Your task to perform on an android device: open chrome and create a bookmark for the current page Image 0: 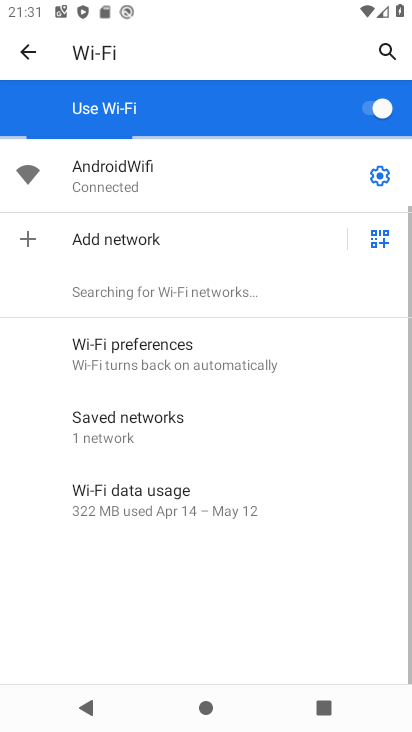
Step 0: press home button
Your task to perform on an android device: open chrome and create a bookmark for the current page Image 1: 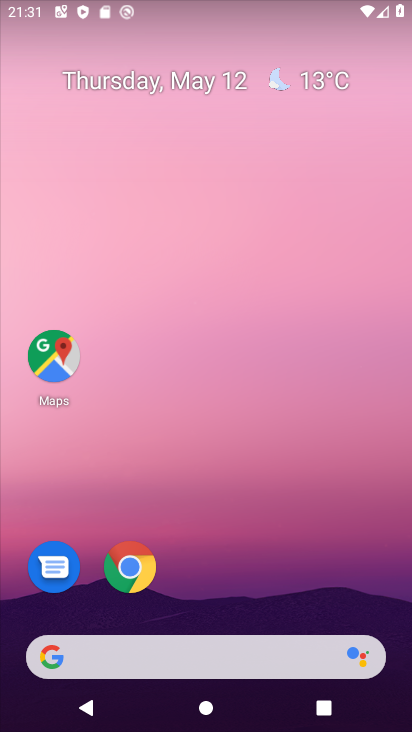
Step 1: drag from (219, 612) to (229, 49)
Your task to perform on an android device: open chrome and create a bookmark for the current page Image 2: 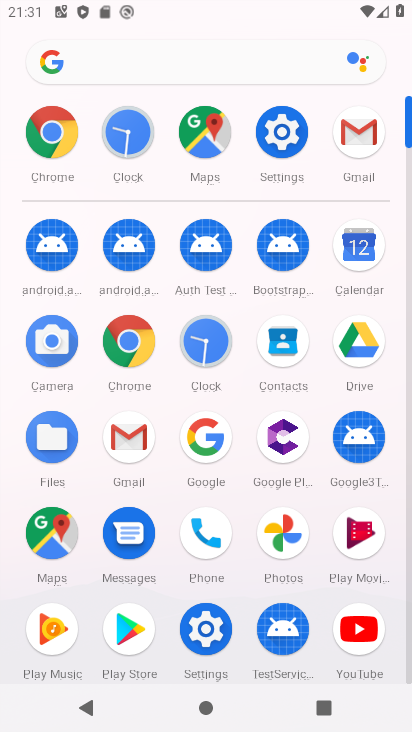
Step 2: click (48, 128)
Your task to perform on an android device: open chrome and create a bookmark for the current page Image 3: 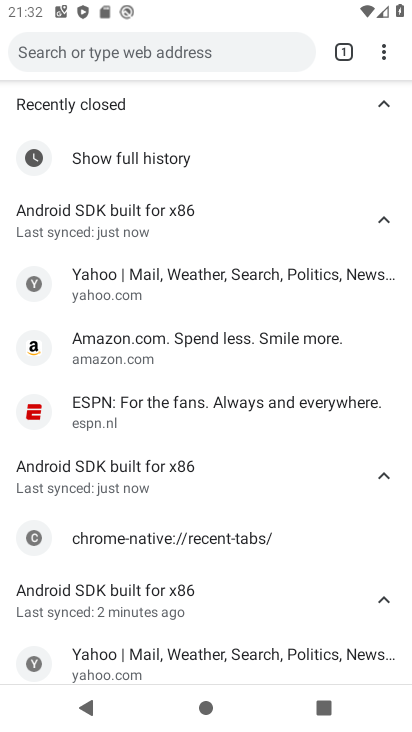
Step 3: click (384, 50)
Your task to perform on an android device: open chrome and create a bookmark for the current page Image 4: 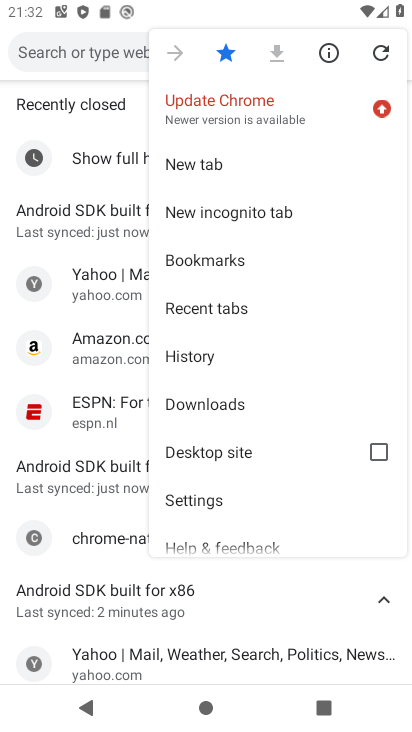
Step 4: click (85, 138)
Your task to perform on an android device: open chrome and create a bookmark for the current page Image 5: 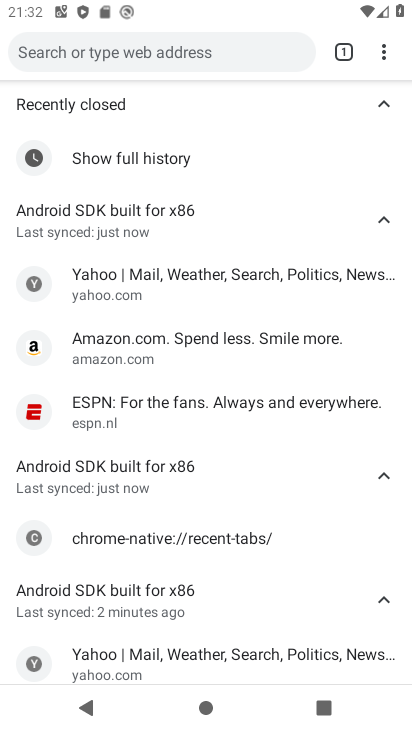
Step 5: click (349, 44)
Your task to perform on an android device: open chrome and create a bookmark for the current page Image 6: 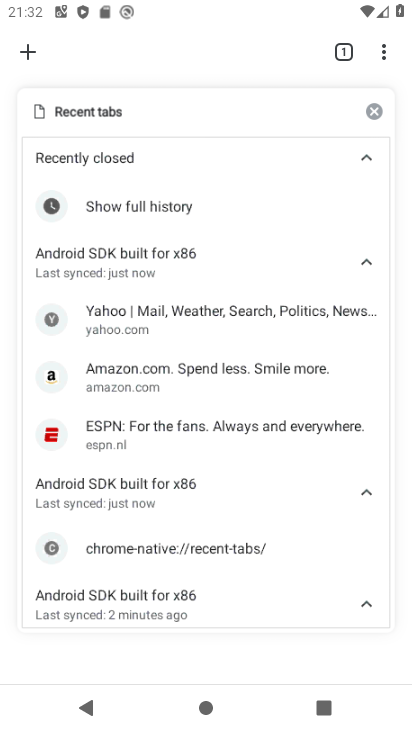
Step 6: click (374, 104)
Your task to perform on an android device: open chrome and create a bookmark for the current page Image 7: 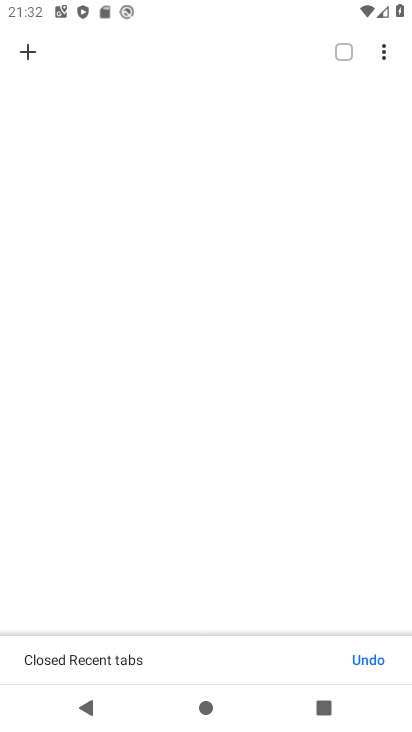
Step 7: click (30, 54)
Your task to perform on an android device: open chrome and create a bookmark for the current page Image 8: 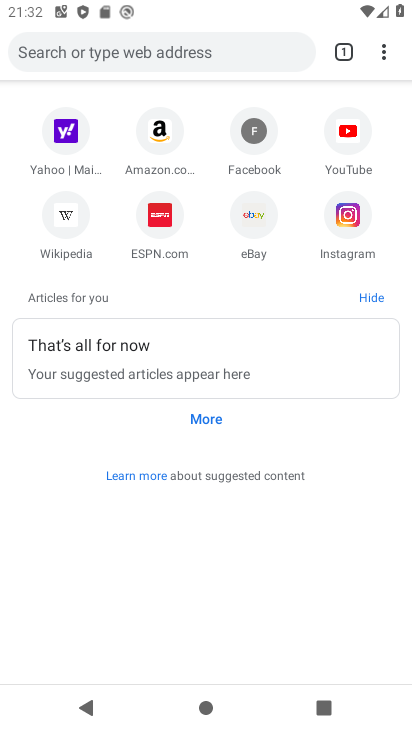
Step 8: click (102, 48)
Your task to perform on an android device: open chrome and create a bookmark for the current page Image 9: 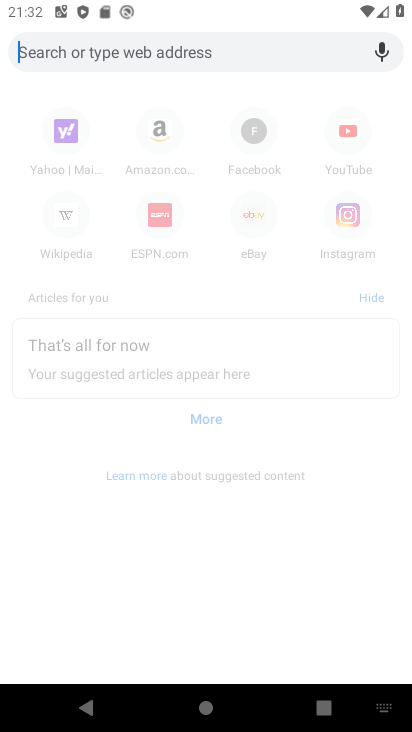
Step 9: type "desires"
Your task to perform on an android device: open chrome and create a bookmark for the current page Image 10: 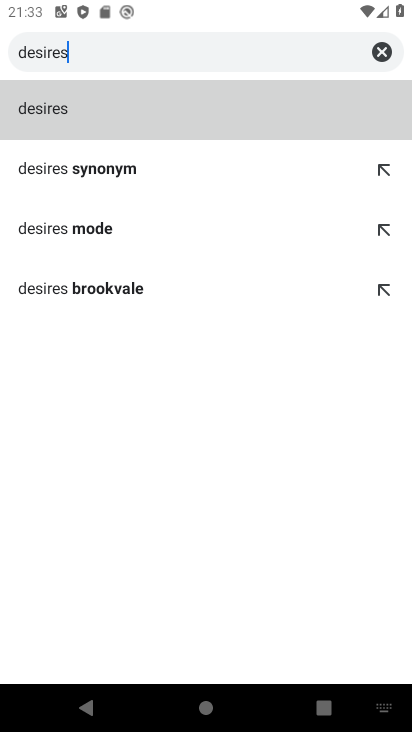
Step 10: click (103, 117)
Your task to perform on an android device: open chrome and create a bookmark for the current page Image 11: 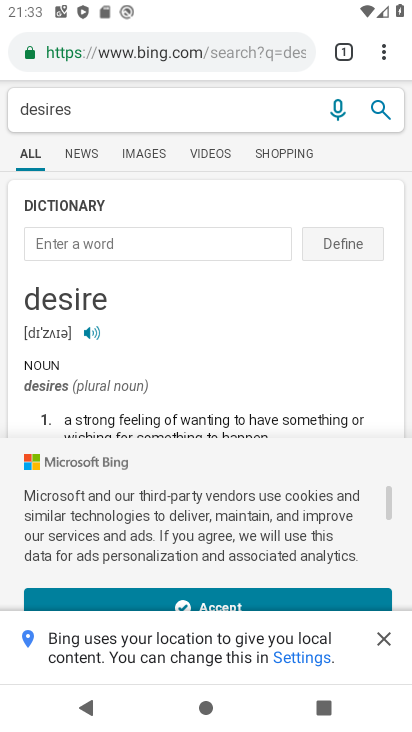
Step 11: click (375, 49)
Your task to perform on an android device: open chrome and create a bookmark for the current page Image 12: 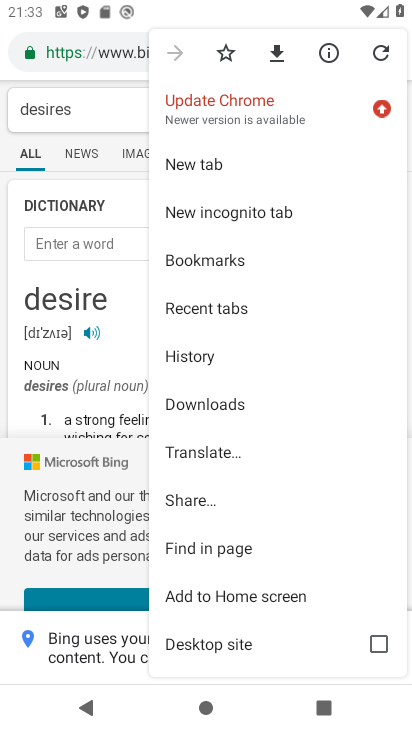
Step 12: click (219, 51)
Your task to perform on an android device: open chrome and create a bookmark for the current page Image 13: 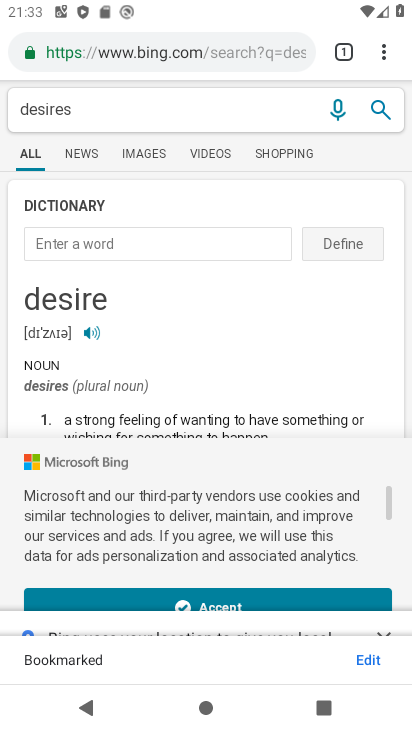
Step 13: task complete